Your task to perform on an android device: check battery use Image 0: 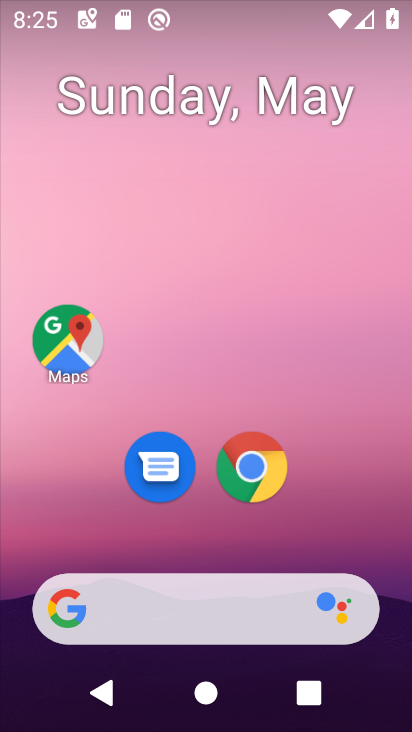
Step 0: drag from (372, 553) to (331, 211)
Your task to perform on an android device: check battery use Image 1: 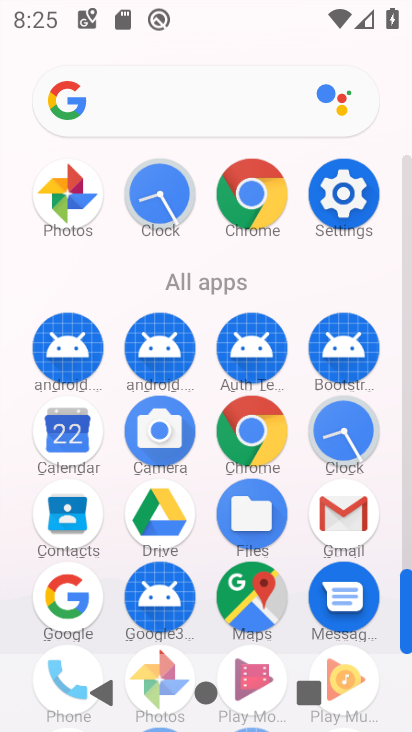
Step 1: click (370, 216)
Your task to perform on an android device: check battery use Image 2: 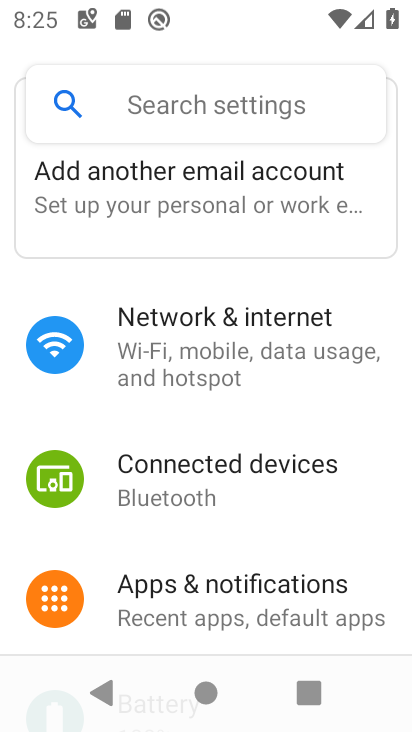
Step 2: drag from (249, 564) to (260, 267)
Your task to perform on an android device: check battery use Image 3: 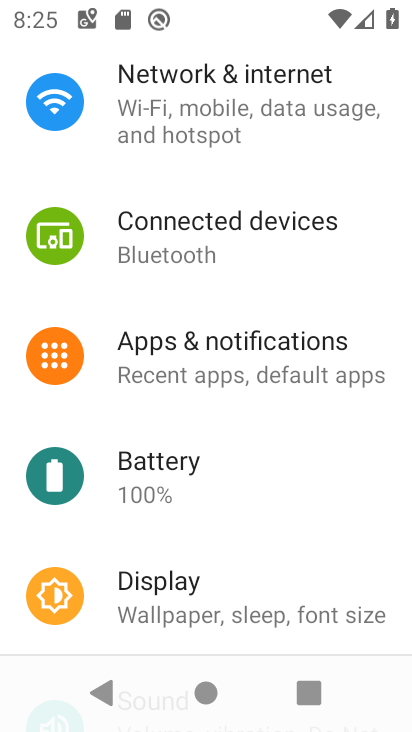
Step 3: click (226, 450)
Your task to perform on an android device: check battery use Image 4: 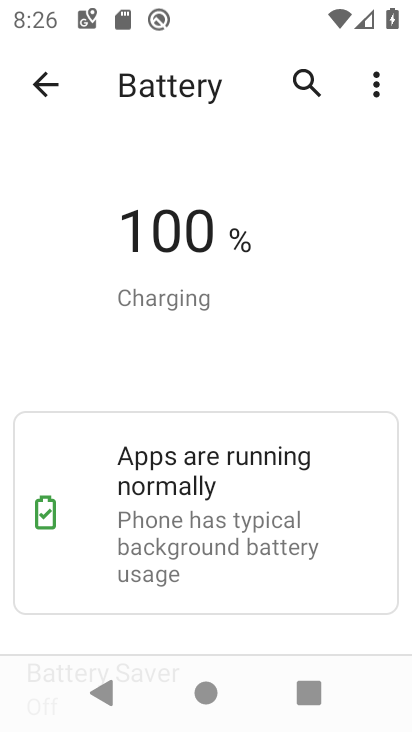
Step 4: click (384, 90)
Your task to perform on an android device: check battery use Image 5: 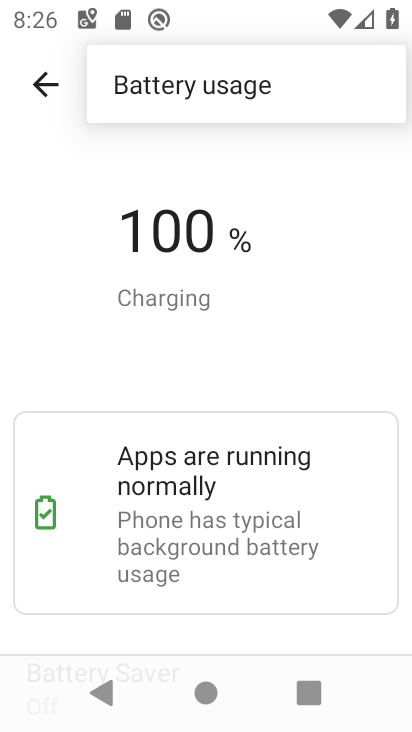
Step 5: click (250, 95)
Your task to perform on an android device: check battery use Image 6: 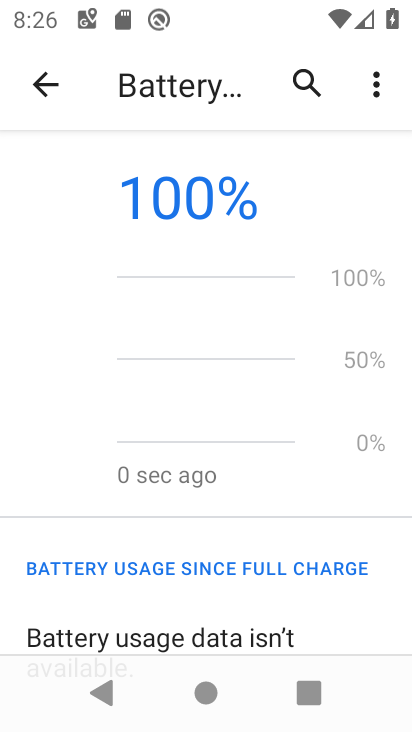
Step 6: task complete